Your task to perform on an android device: empty trash in google photos Image 0: 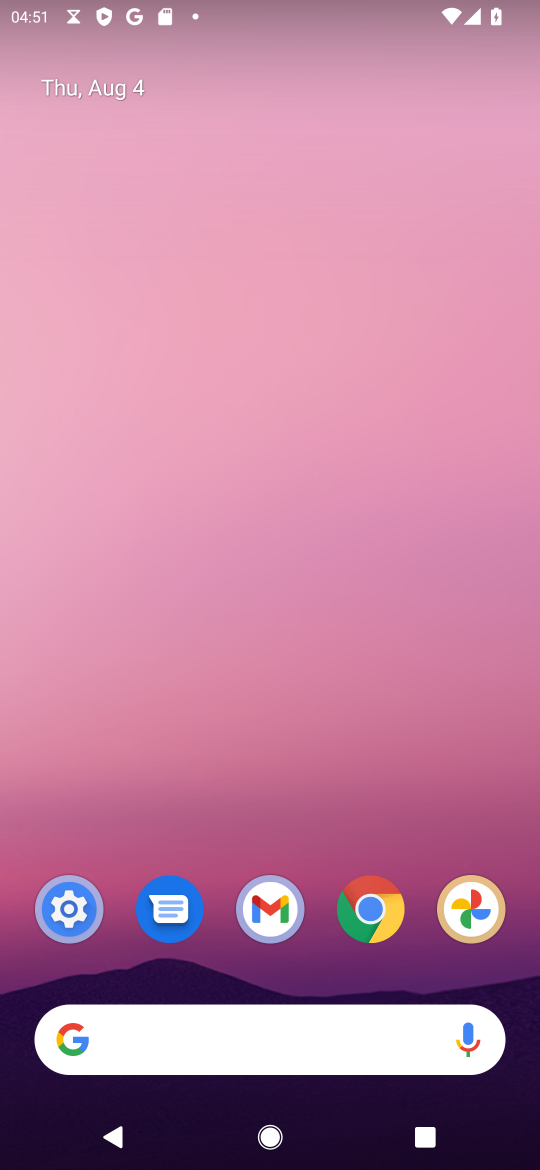
Step 0: press home button
Your task to perform on an android device: empty trash in google photos Image 1: 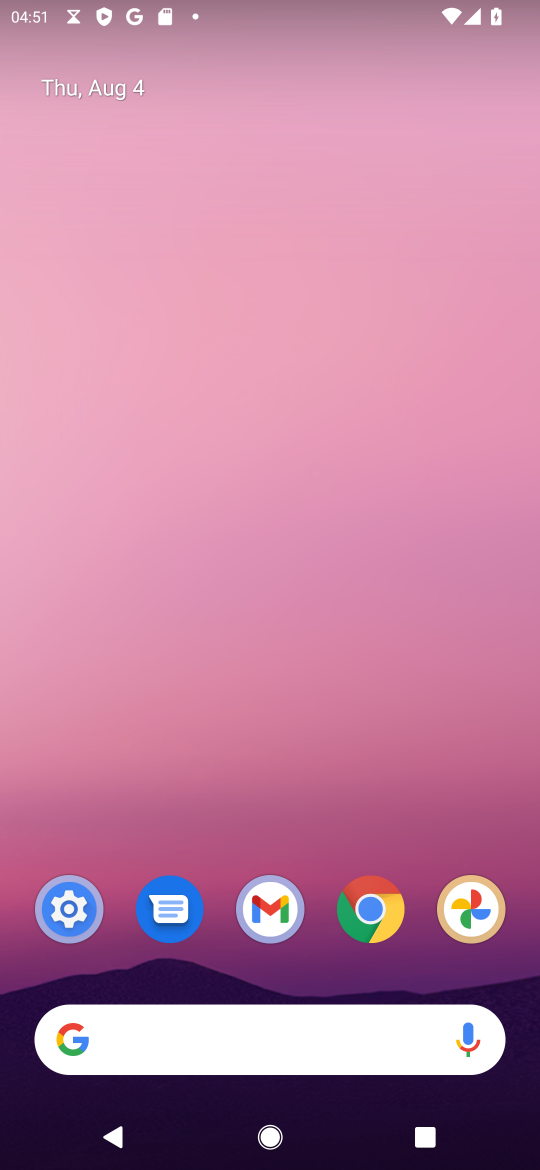
Step 1: click (476, 918)
Your task to perform on an android device: empty trash in google photos Image 2: 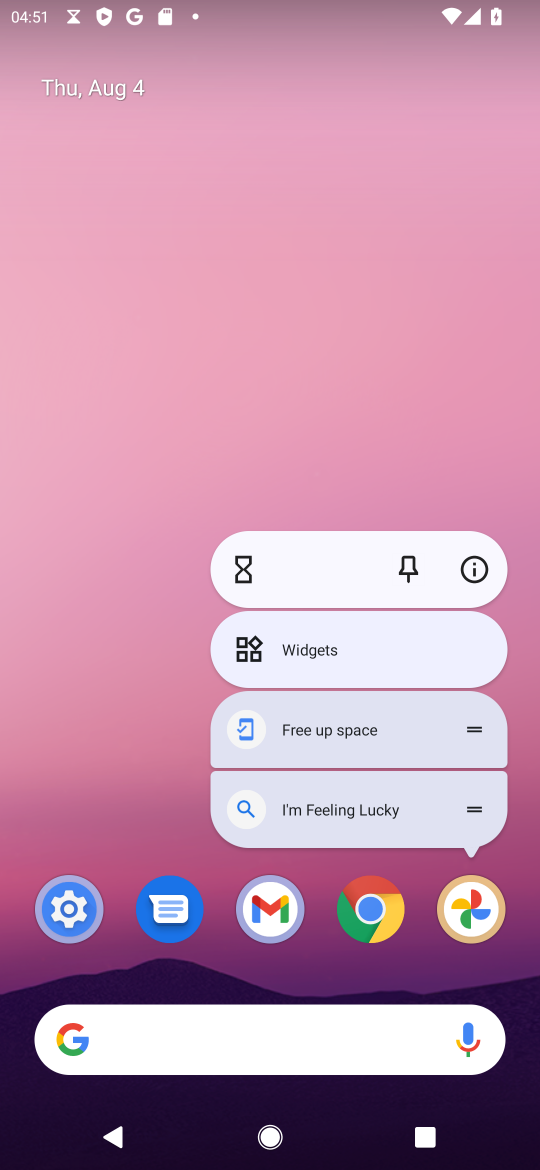
Step 2: click (476, 904)
Your task to perform on an android device: empty trash in google photos Image 3: 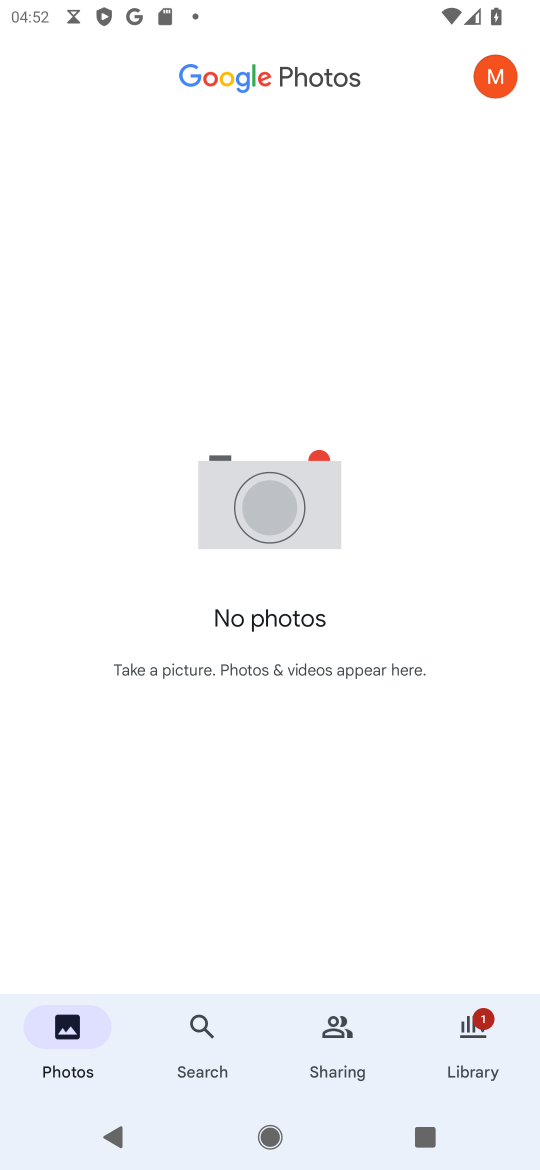
Step 3: click (473, 1043)
Your task to perform on an android device: empty trash in google photos Image 4: 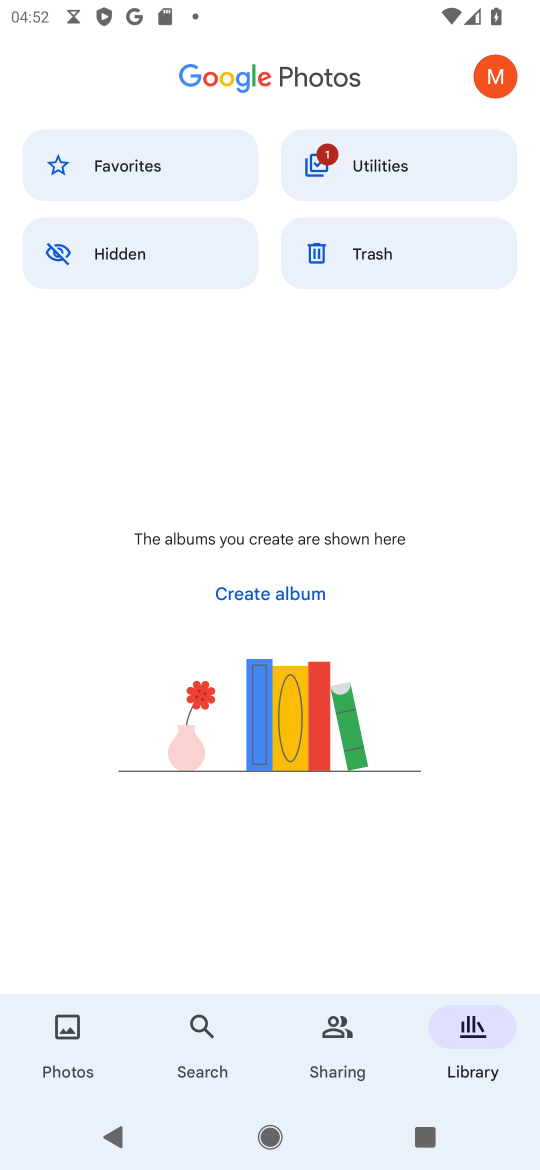
Step 4: click (399, 256)
Your task to perform on an android device: empty trash in google photos Image 5: 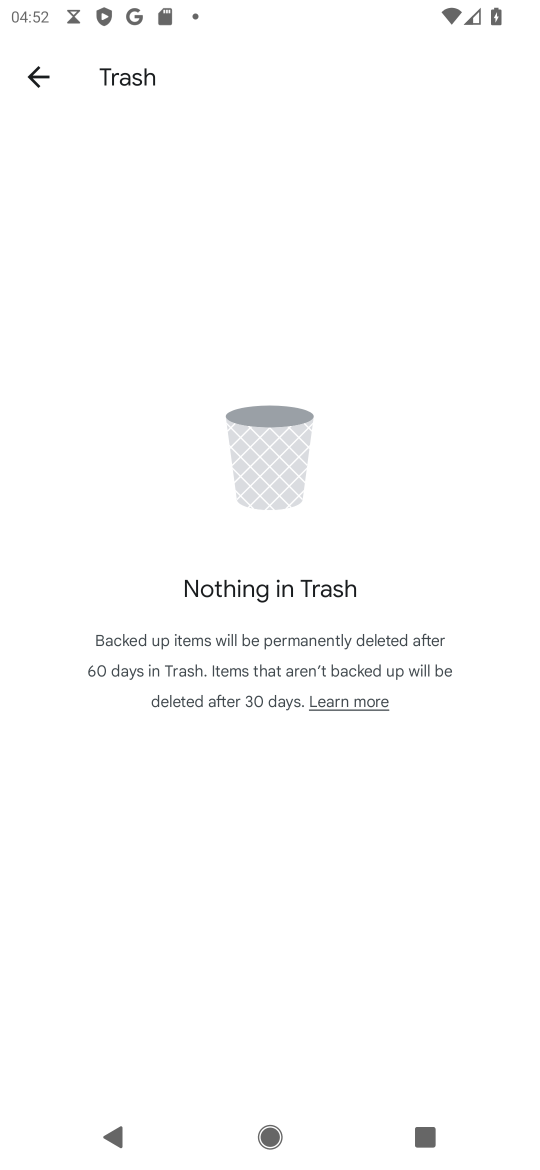
Step 5: task complete